Your task to perform on an android device: install app "Cash App" Image 0: 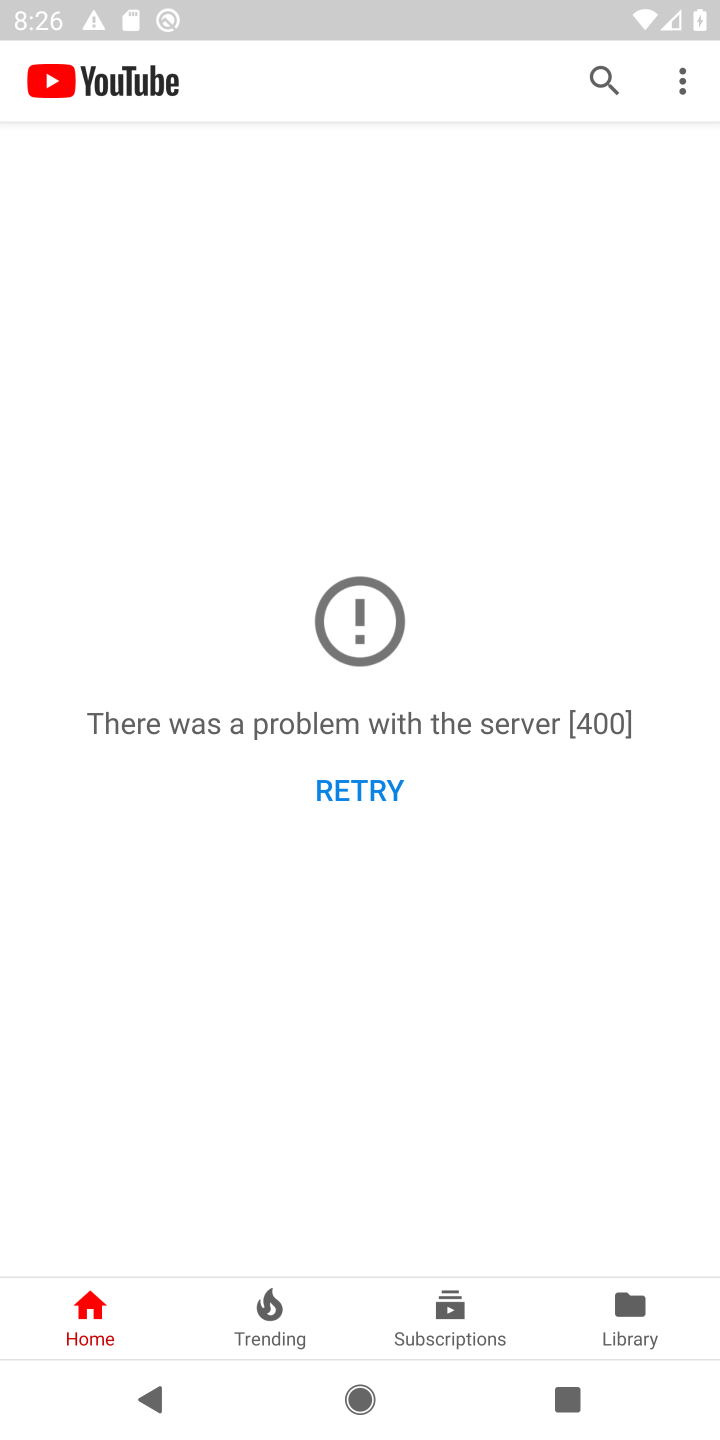
Step 0: press home button
Your task to perform on an android device: install app "Cash App" Image 1: 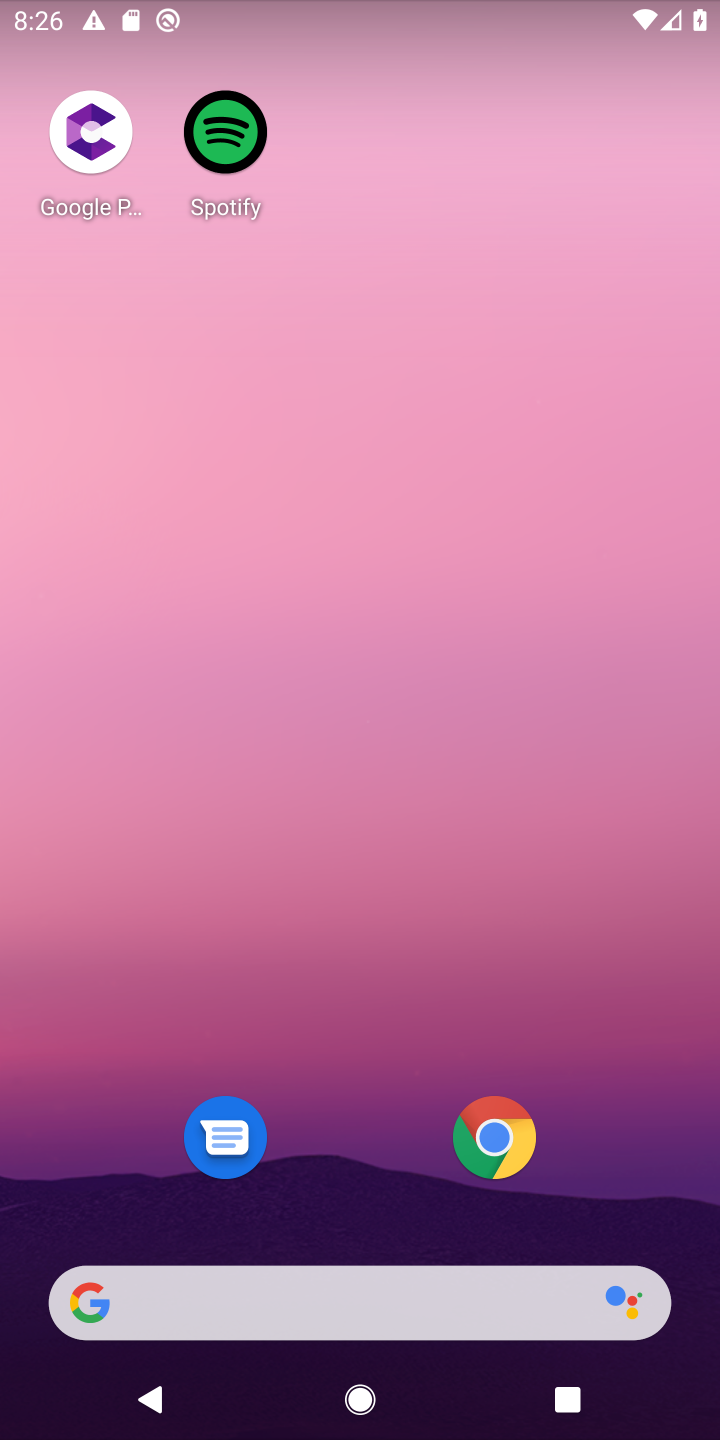
Step 1: drag from (596, 1077) to (633, 74)
Your task to perform on an android device: install app "Cash App" Image 2: 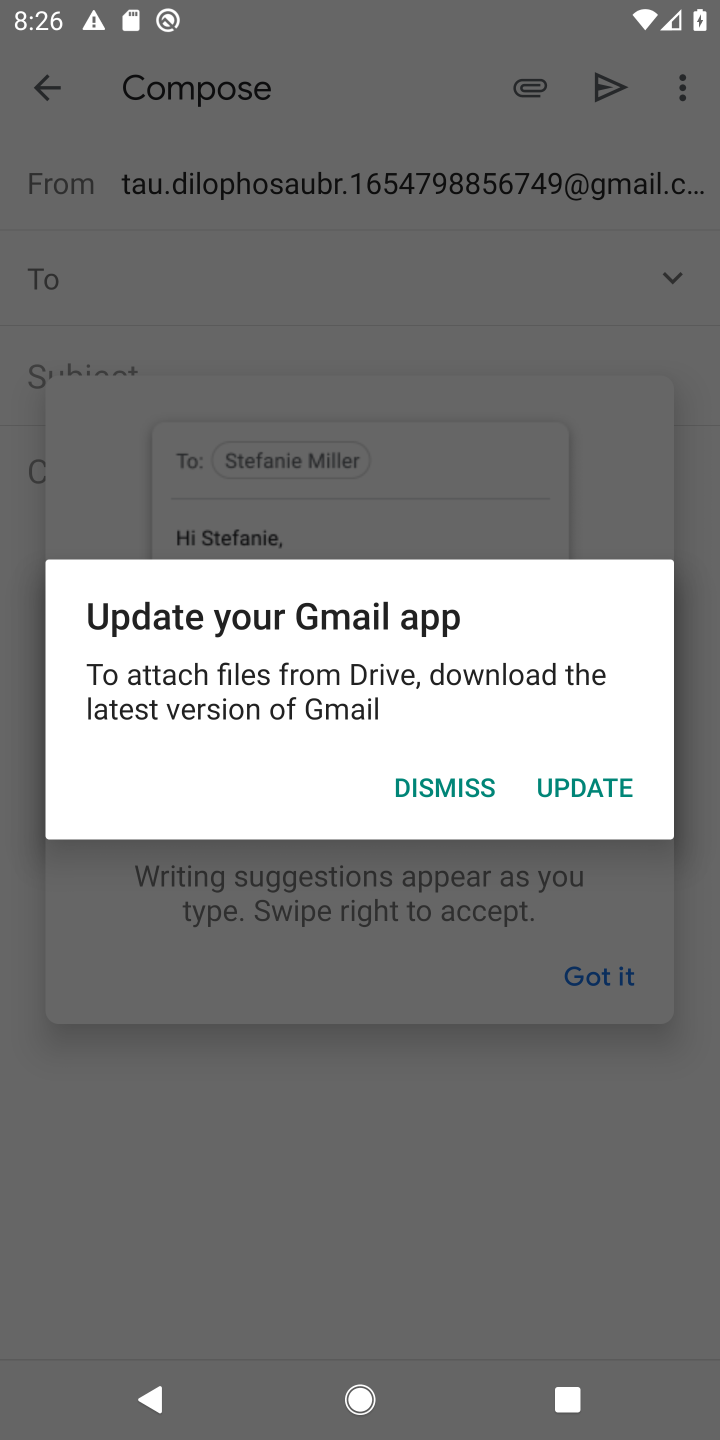
Step 2: press home button
Your task to perform on an android device: install app "Cash App" Image 3: 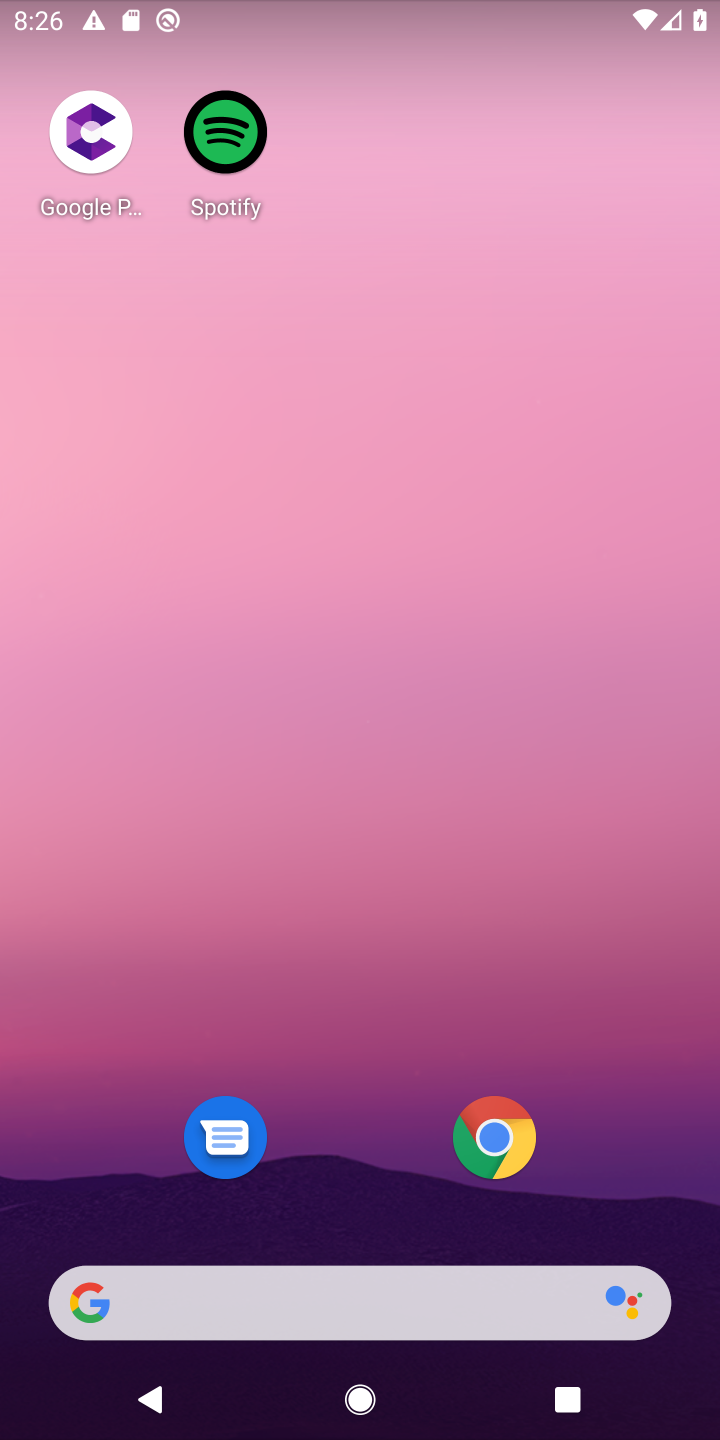
Step 3: drag from (614, 1088) to (676, 98)
Your task to perform on an android device: install app "Cash App" Image 4: 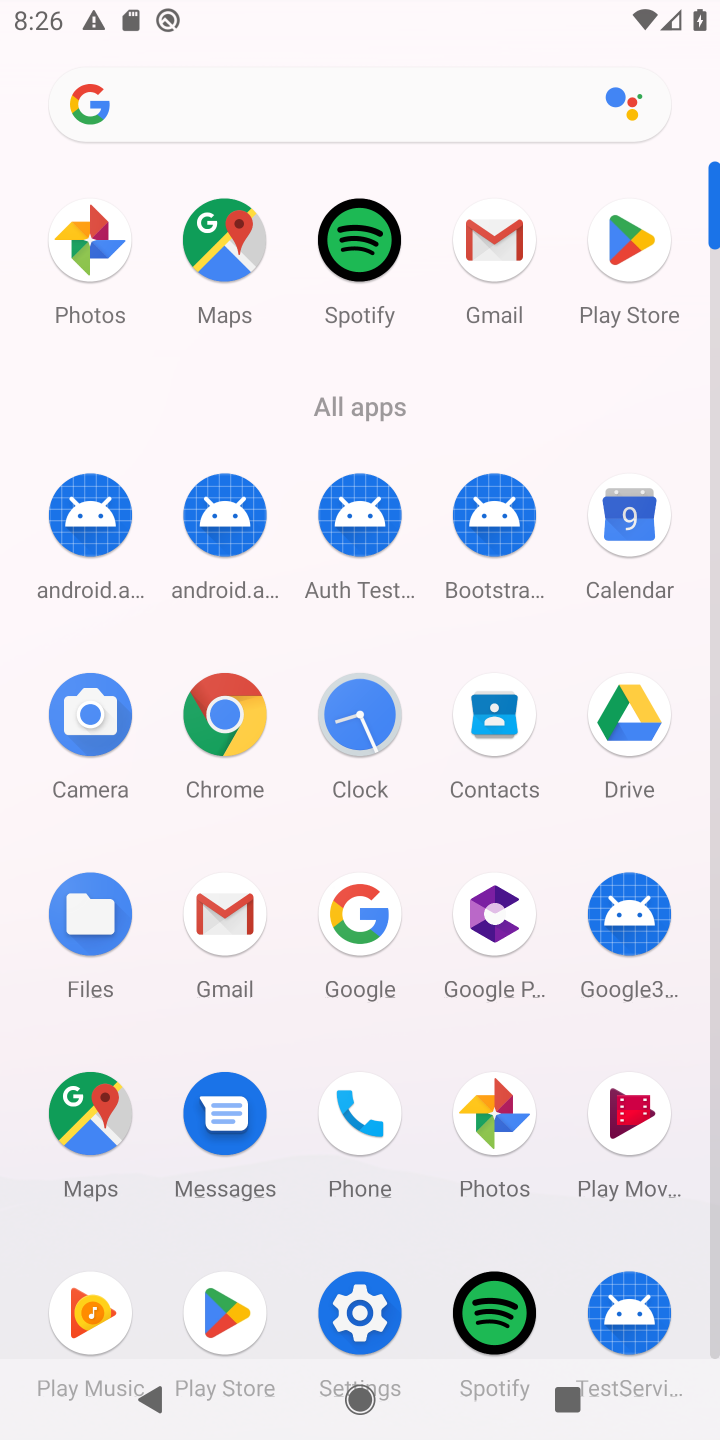
Step 4: click (619, 246)
Your task to perform on an android device: install app "Cash App" Image 5: 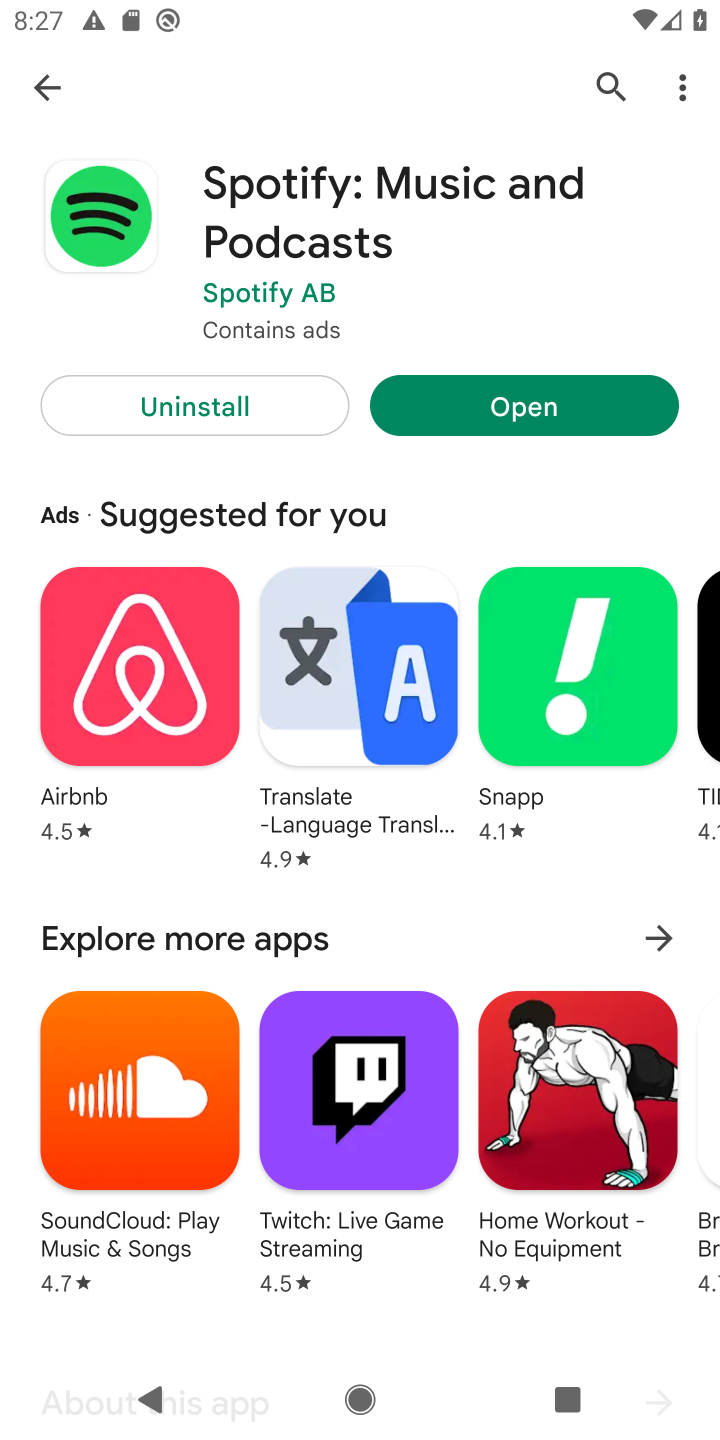
Step 5: click (600, 78)
Your task to perform on an android device: install app "Cash App" Image 6: 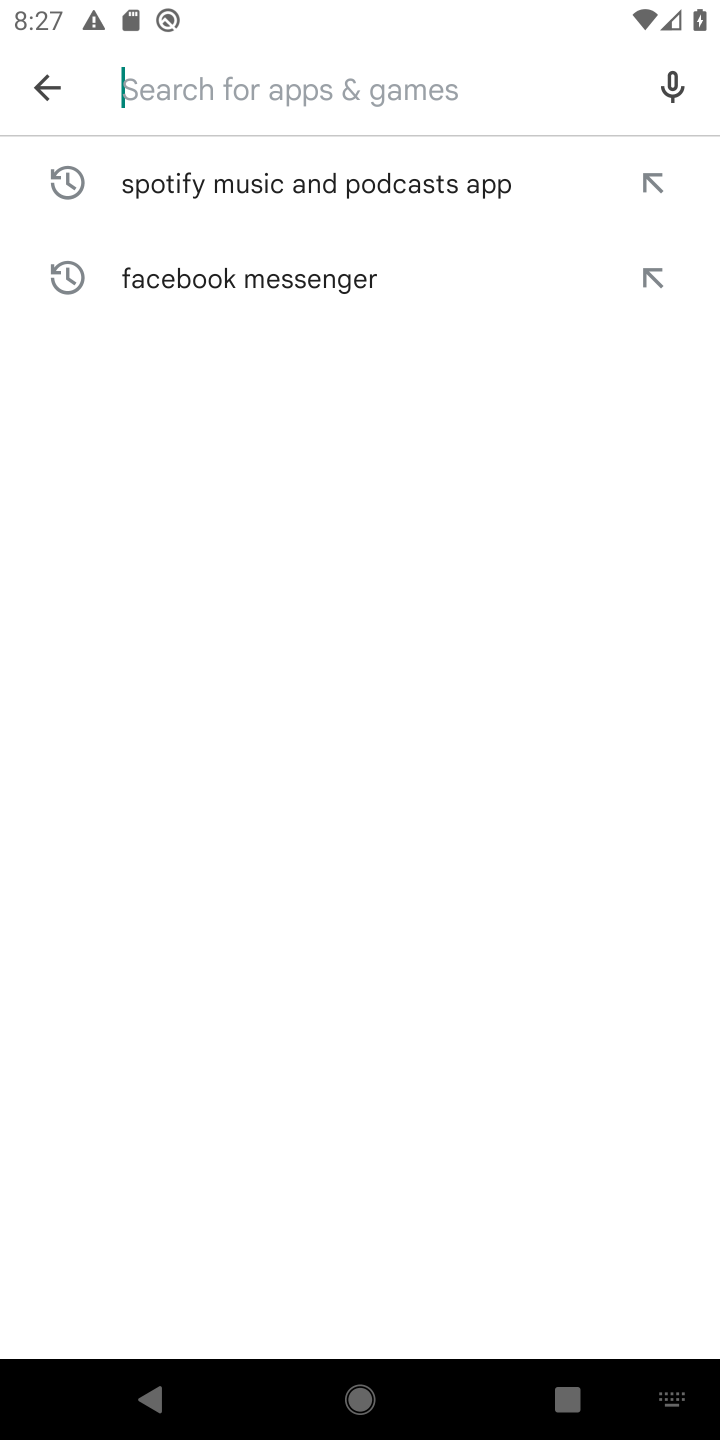
Step 6: type "cash app"
Your task to perform on an android device: install app "Cash App" Image 7: 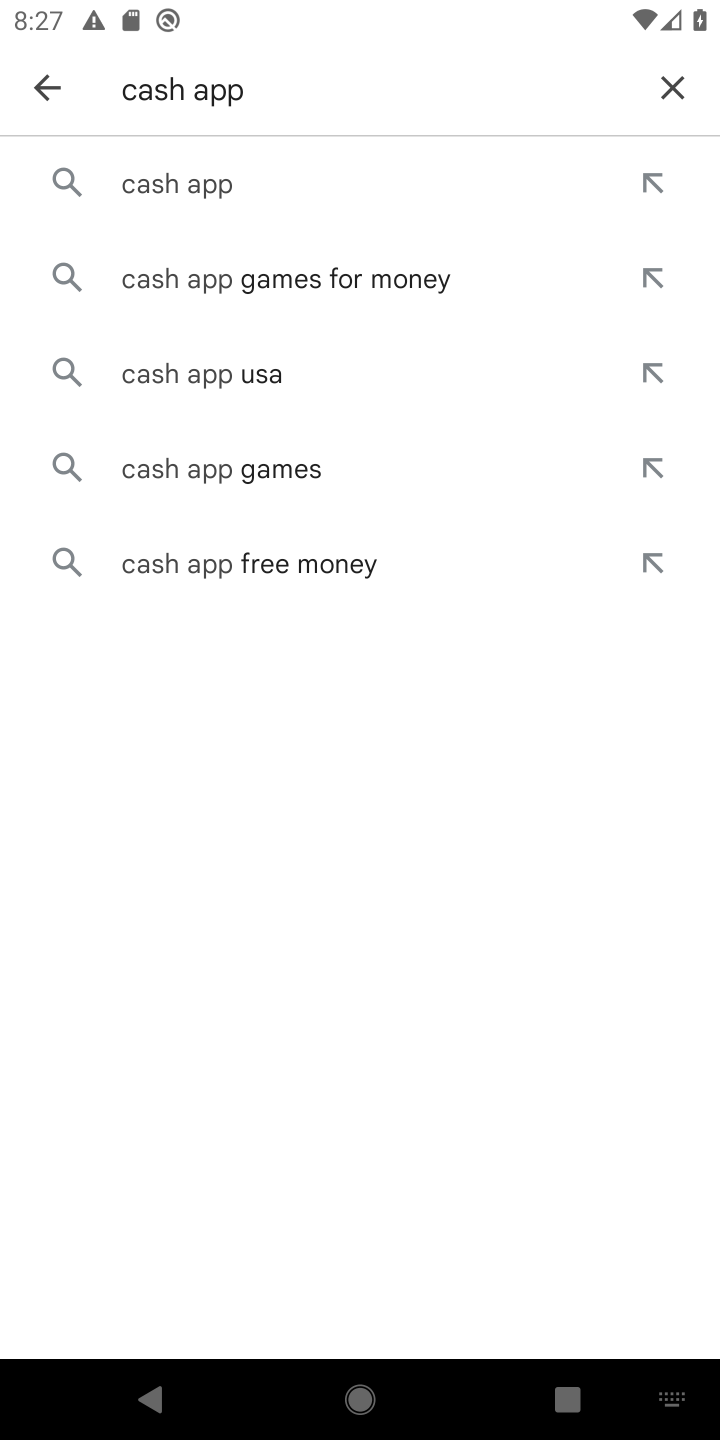
Step 7: click (249, 178)
Your task to perform on an android device: install app "Cash App" Image 8: 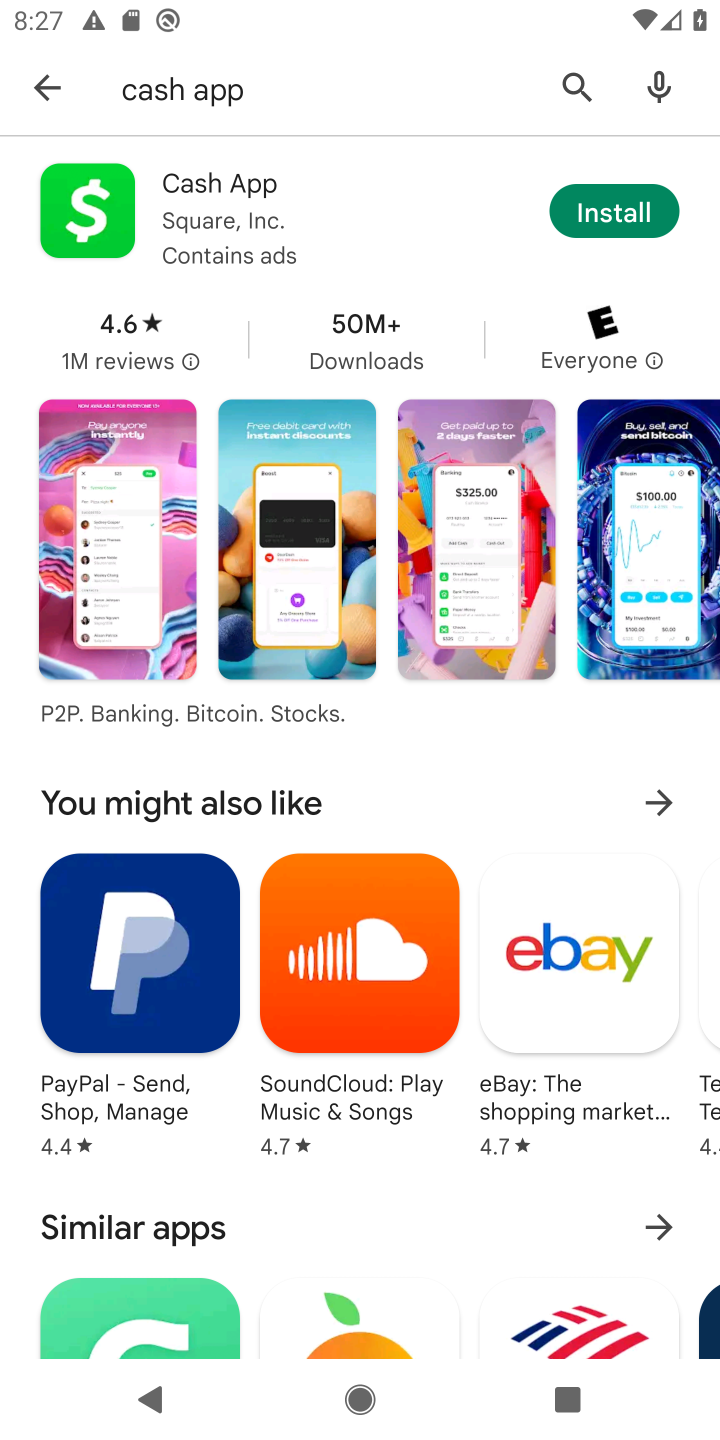
Step 8: click (640, 221)
Your task to perform on an android device: install app "Cash App" Image 9: 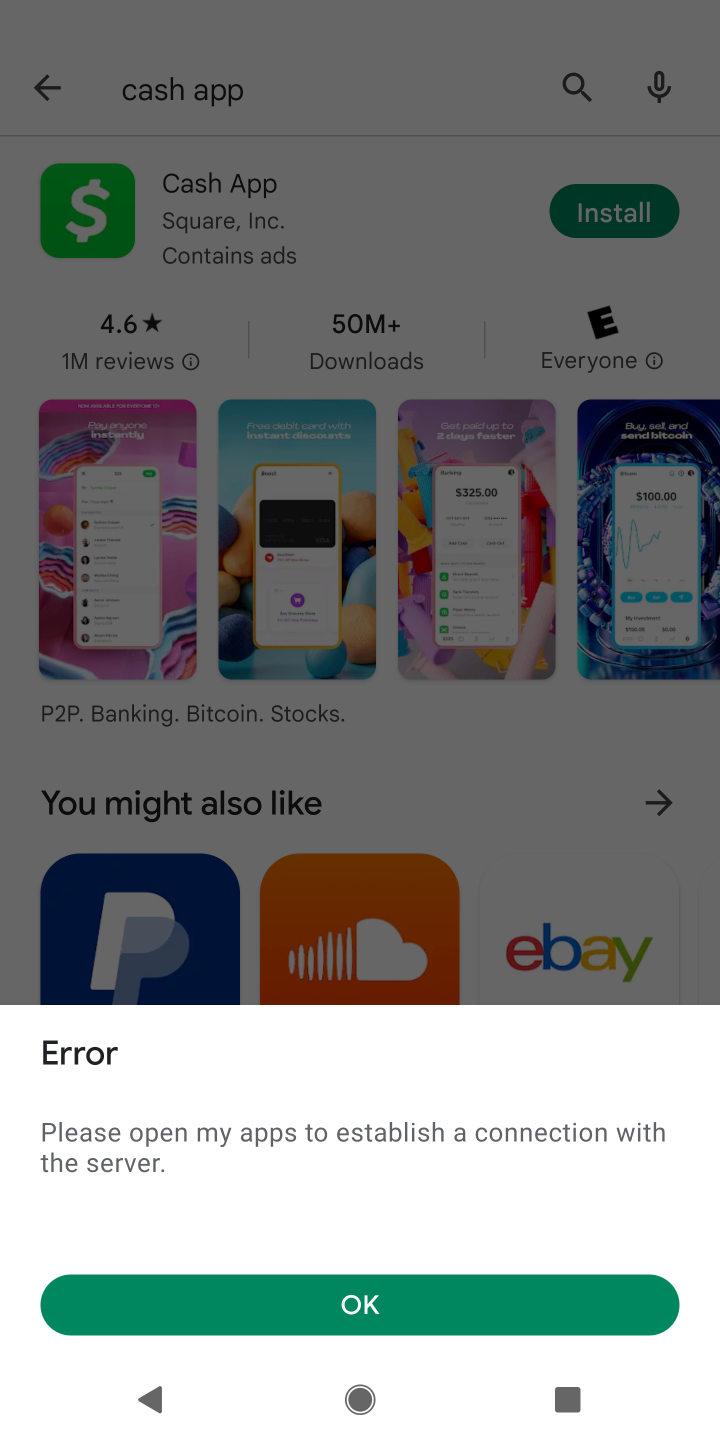
Step 9: click (342, 1320)
Your task to perform on an android device: install app "Cash App" Image 10: 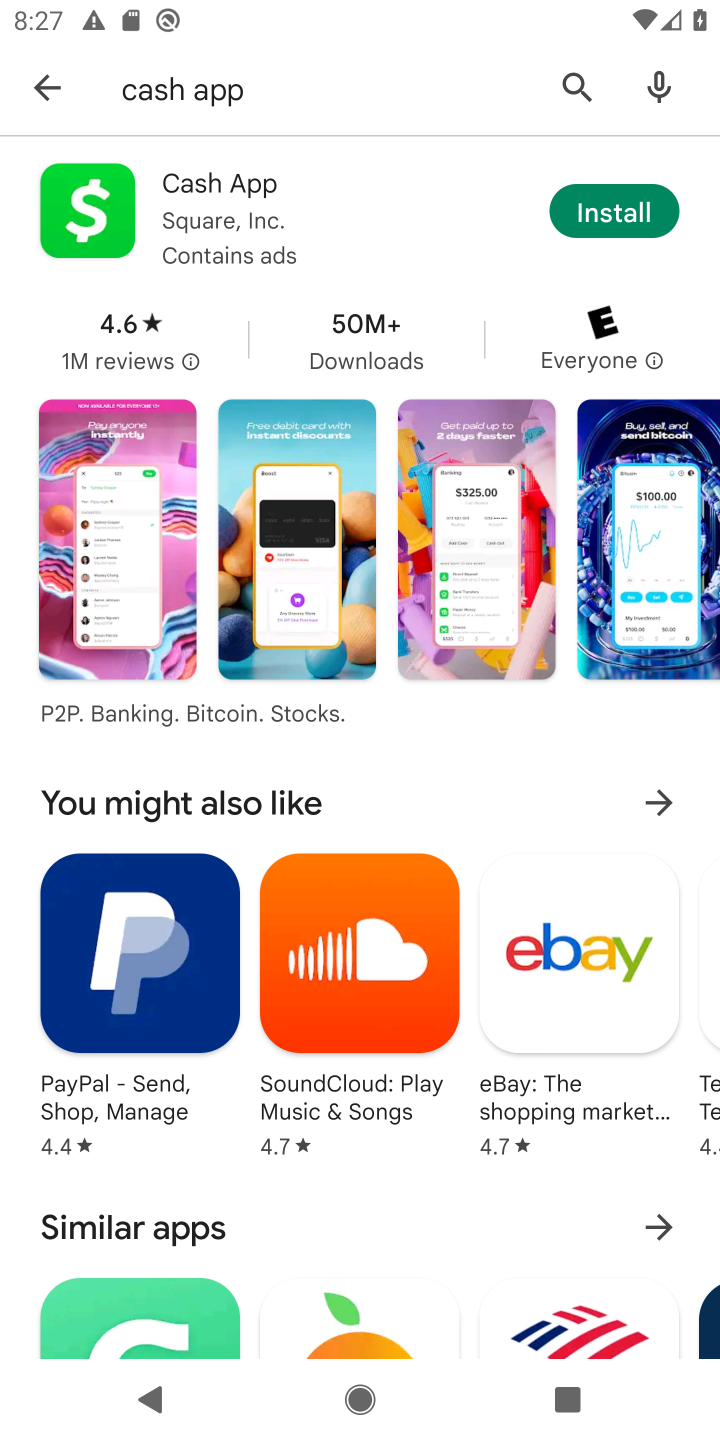
Step 10: click (608, 195)
Your task to perform on an android device: install app "Cash App" Image 11: 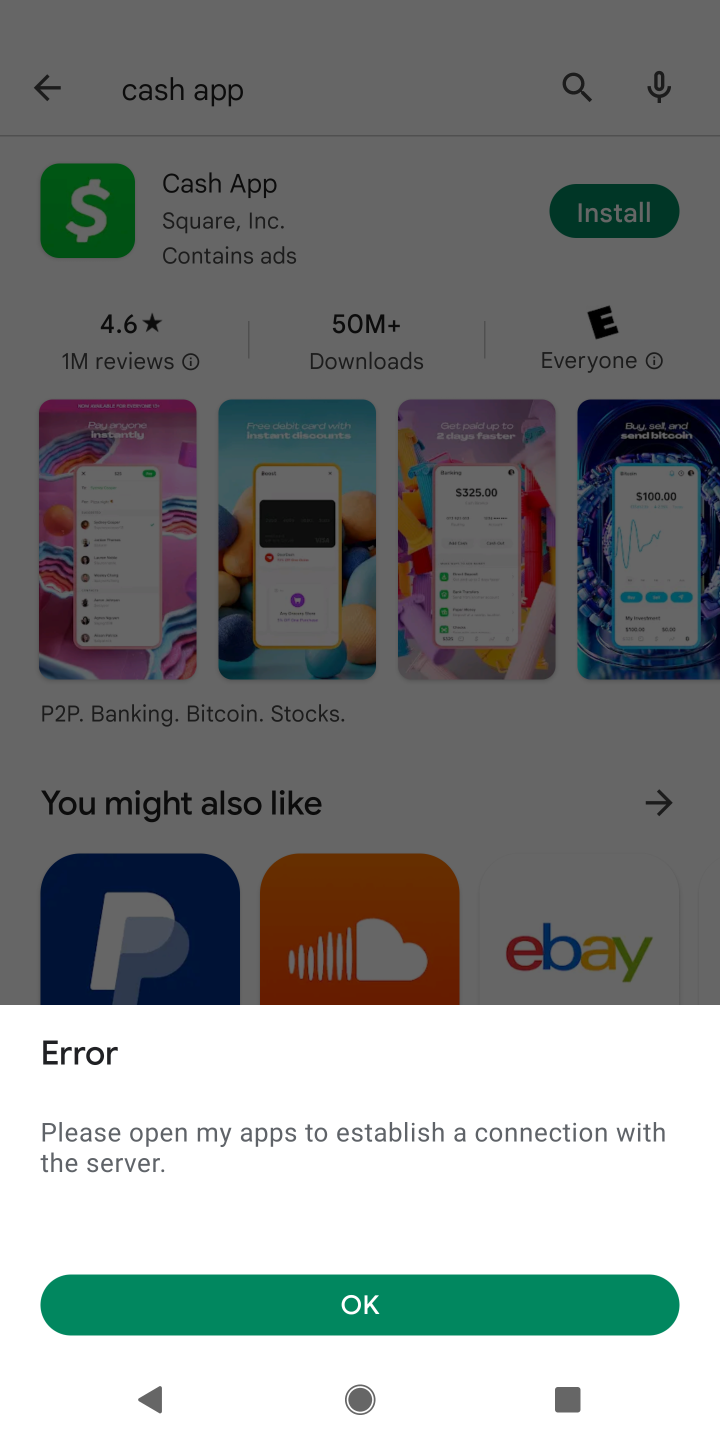
Step 11: task complete